Your task to perform on an android device: Open calendar and show me the second week of next month Image 0: 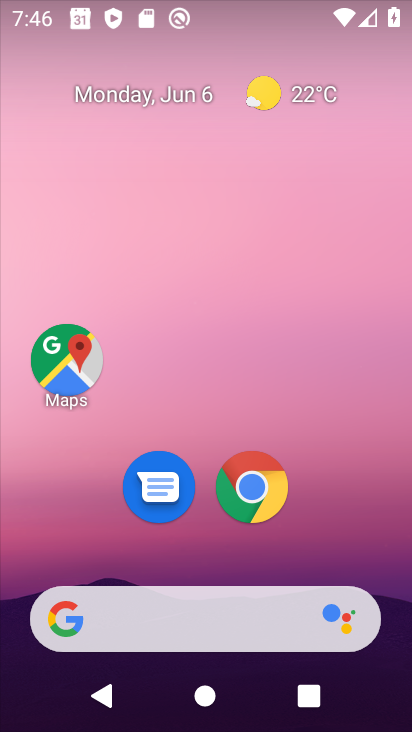
Step 0: drag from (330, 531) to (348, 115)
Your task to perform on an android device: Open calendar and show me the second week of next month Image 1: 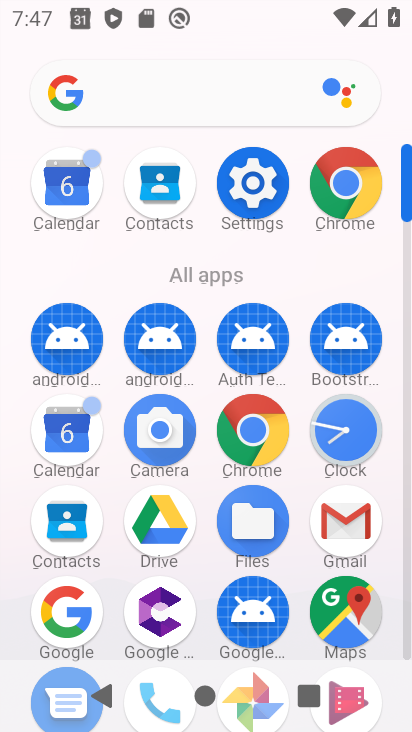
Step 1: click (55, 443)
Your task to perform on an android device: Open calendar and show me the second week of next month Image 2: 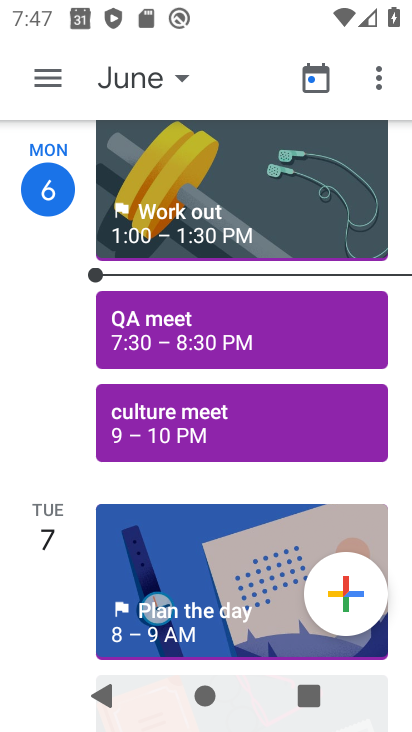
Step 2: click (128, 82)
Your task to perform on an android device: Open calendar and show me the second week of next month Image 3: 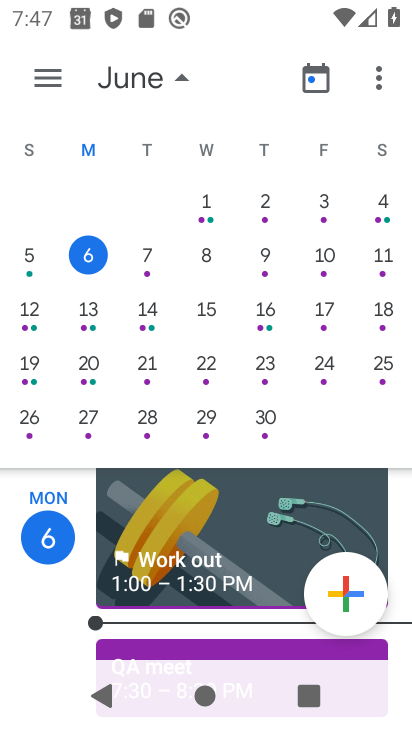
Step 3: drag from (356, 322) to (11, 313)
Your task to perform on an android device: Open calendar and show me the second week of next month Image 4: 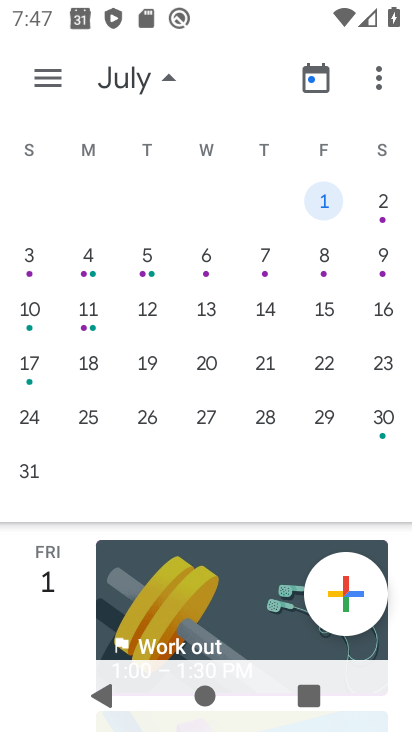
Step 4: click (28, 256)
Your task to perform on an android device: Open calendar and show me the second week of next month Image 5: 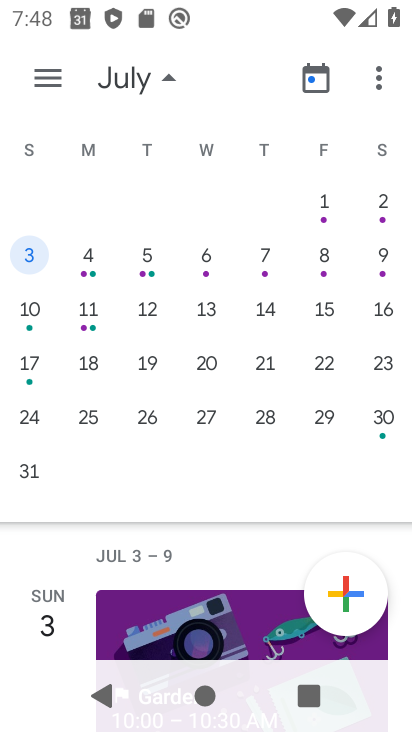
Step 5: task complete